Your task to perform on an android device: Open the calendar and show me this week's events? Image 0: 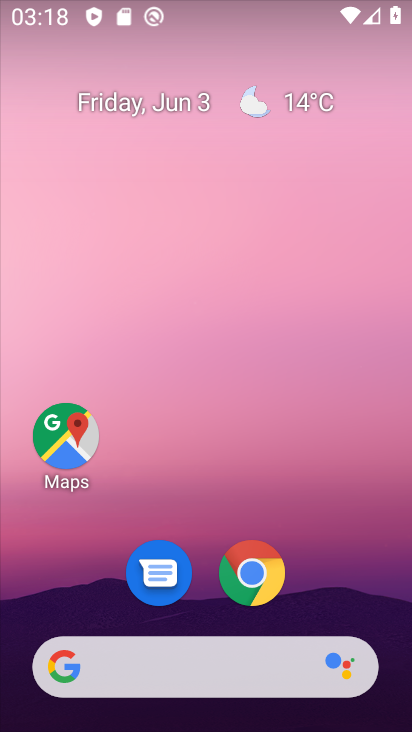
Step 0: drag from (283, 671) to (336, 22)
Your task to perform on an android device: Open the calendar and show me this week's events? Image 1: 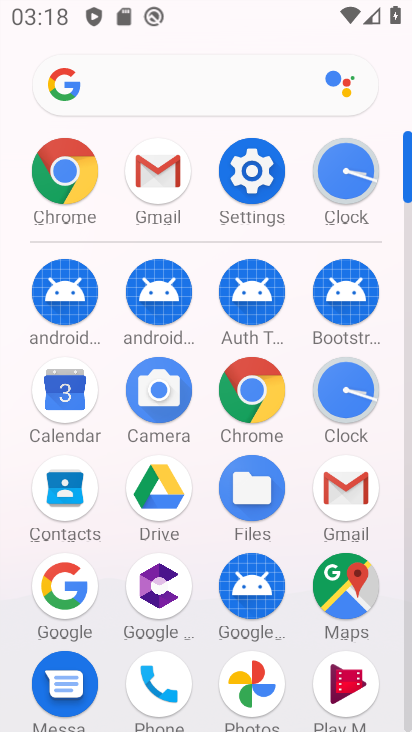
Step 1: click (68, 387)
Your task to perform on an android device: Open the calendar and show me this week's events? Image 2: 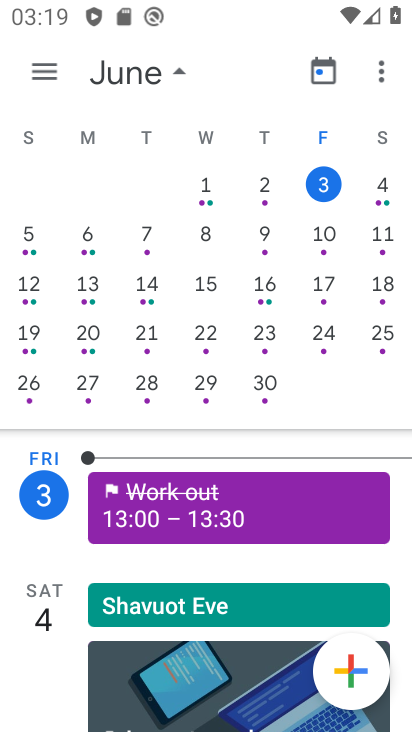
Step 2: click (387, 177)
Your task to perform on an android device: Open the calendar and show me this week's events? Image 3: 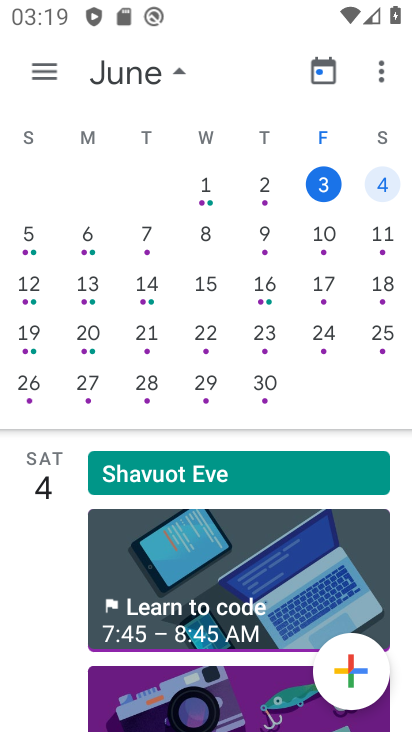
Step 3: task complete